Your task to perform on an android device: What's the weather? Image 0: 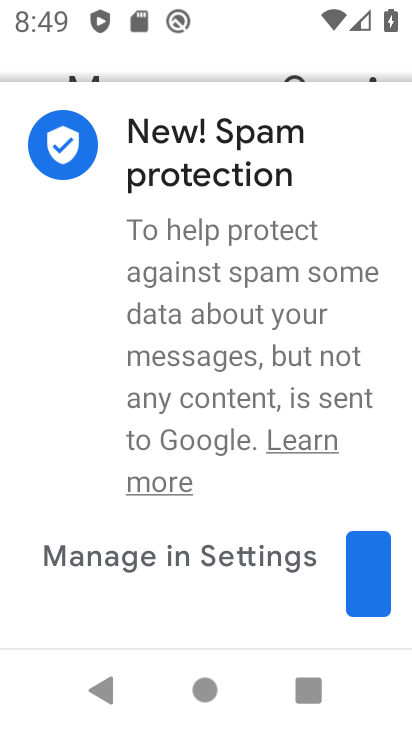
Step 0: press home button
Your task to perform on an android device: What's the weather? Image 1: 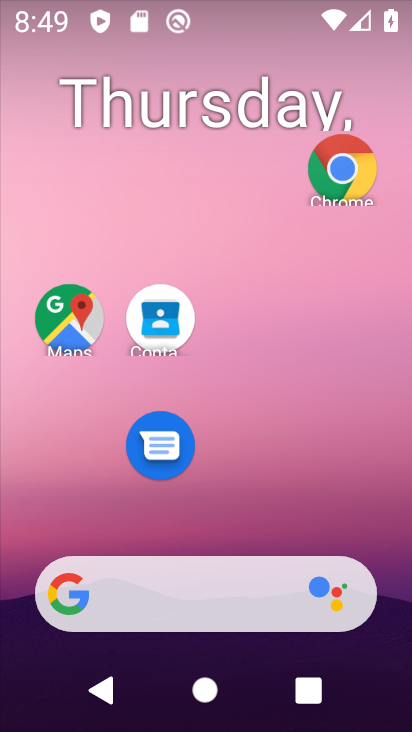
Step 1: drag from (249, 644) to (261, 224)
Your task to perform on an android device: What's the weather? Image 2: 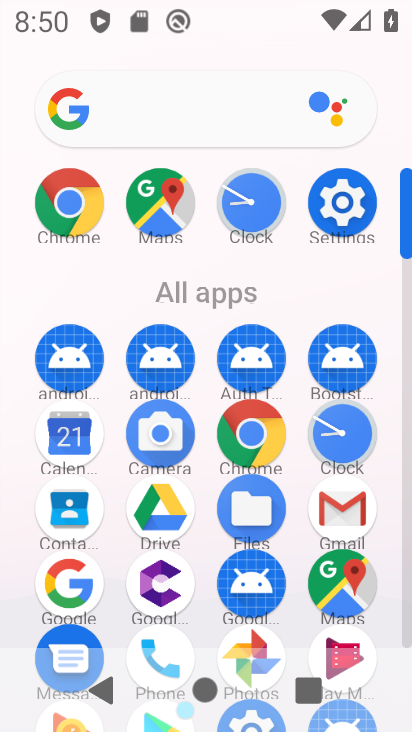
Step 2: click (229, 135)
Your task to perform on an android device: What's the weather? Image 3: 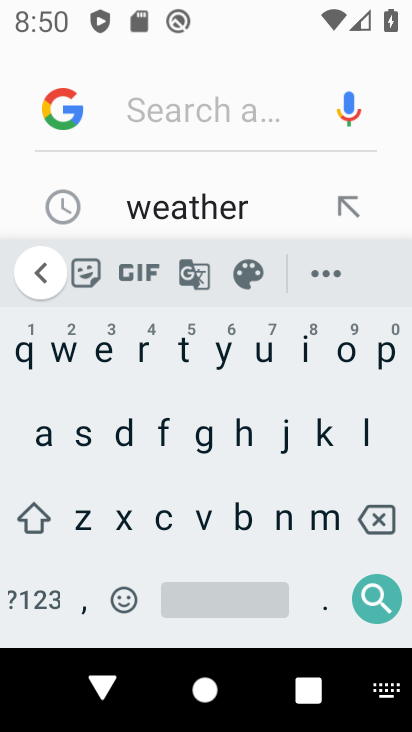
Step 3: click (174, 188)
Your task to perform on an android device: What's the weather? Image 4: 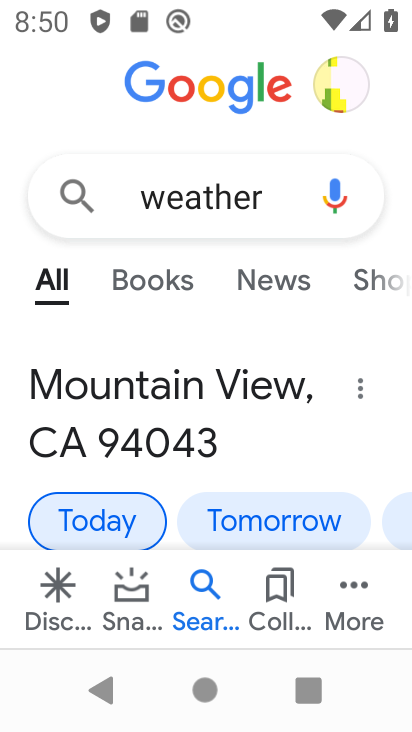
Step 4: task complete